Your task to perform on an android device: toggle priority inbox in the gmail app Image 0: 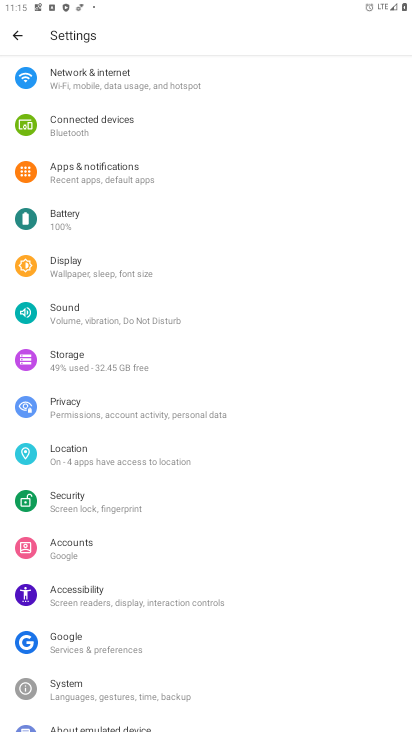
Step 0: press home button
Your task to perform on an android device: toggle priority inbox in the gmail app Image 1: 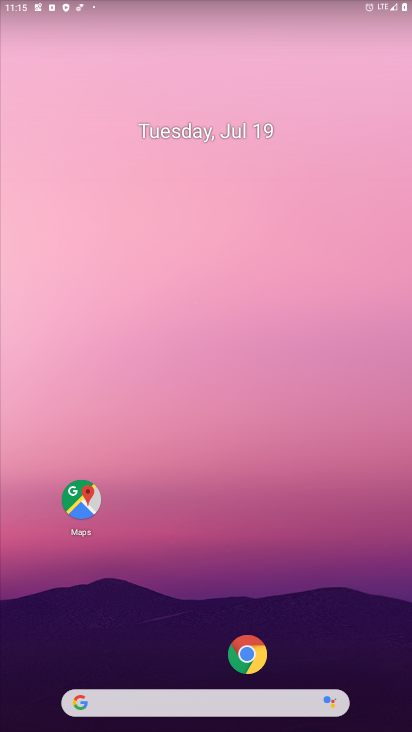
Step 1: drag from (135, 627) to (191, 13)
Your task to perform on an android device: toggle priority inbox in the gmail app Image 2: 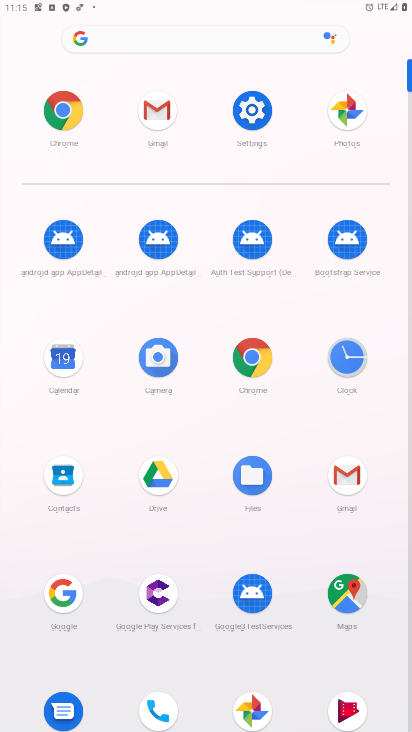
Step 2: click (134, 117)
Your task to perform on an android device: toggle priority inbox in the gmail app Image 3: 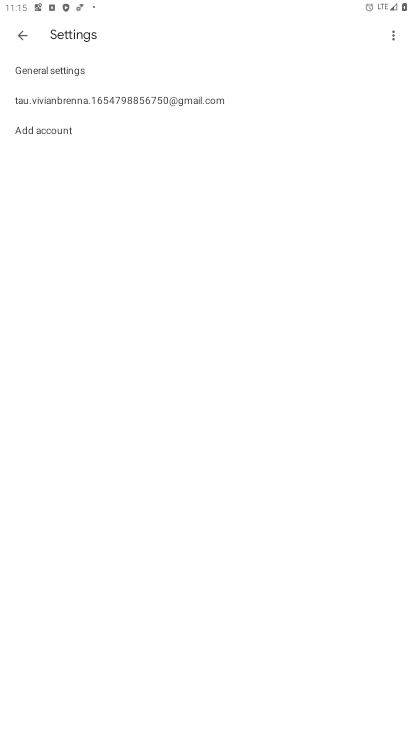
Step 3: click (27, 43)
Your task to perform on an android device: toggle priority inbox in the gmail app Image 4: 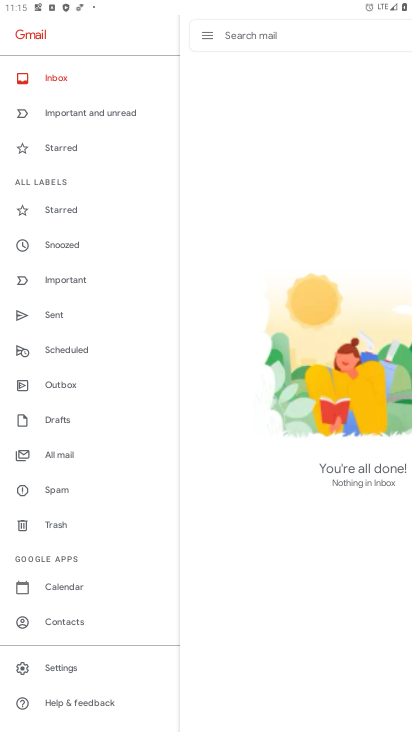
Step 4: click (67, 669)
Your task to perform on an android device: toggle priority inbox in the gmail app Image 5: 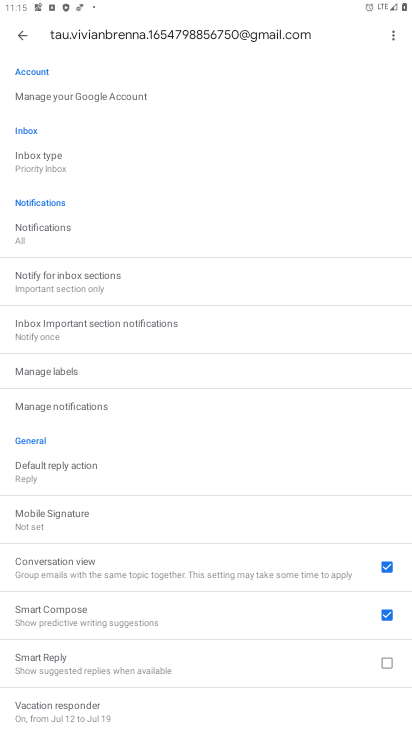
Step 5: click (83, 141)
Your task to perform on an android device: toggle priority inbox in the gmail app Image 6: 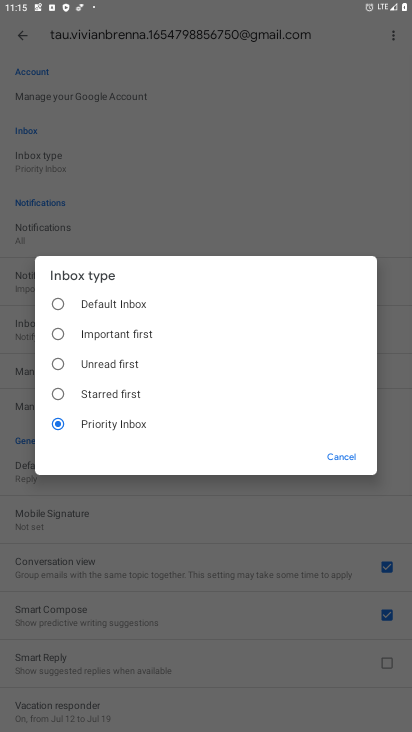
Step 6: click (141, 357)
Your task to perform on an android device: toggle priority inbox in the gmail app Image 7: 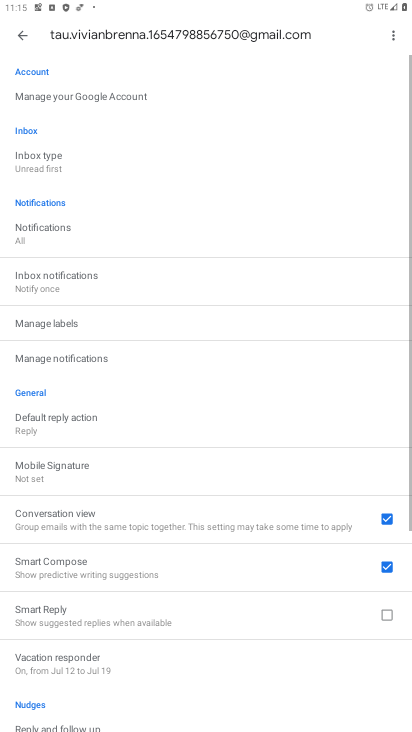
Step 7: task complete